Your task to perform on an android device: allow notifications from all sites in the chrome app Image 0: 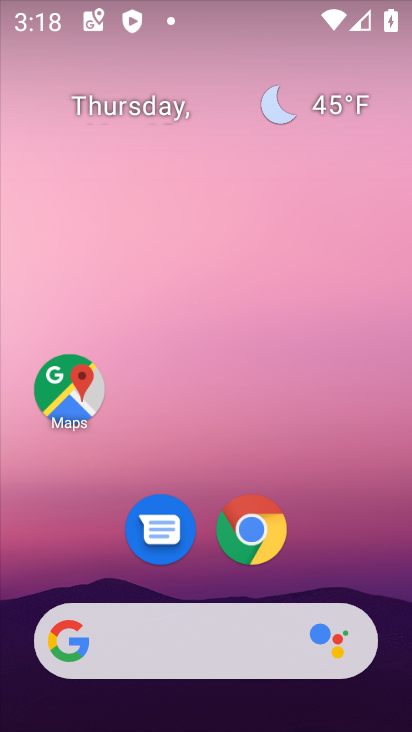
Step 0: drag from (336, 505) to (329, 76)
Your task to perform on an android device: allow notifications from all sites in the chrome app Image 1: 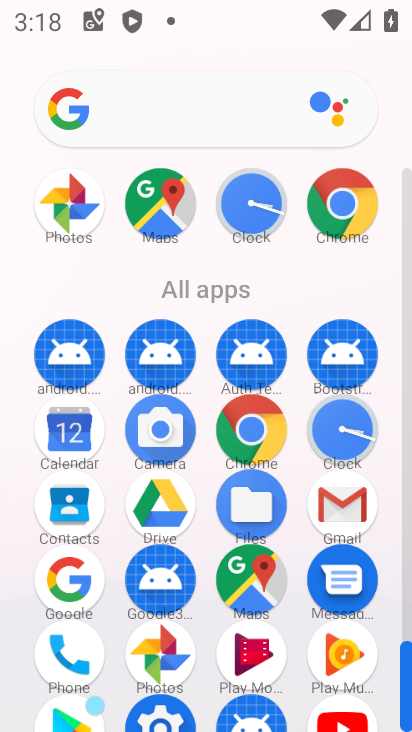
Step 1: click (347, 218)
Your task to perform on an android device: allow notifications from all sites in the chrome app Image 2: 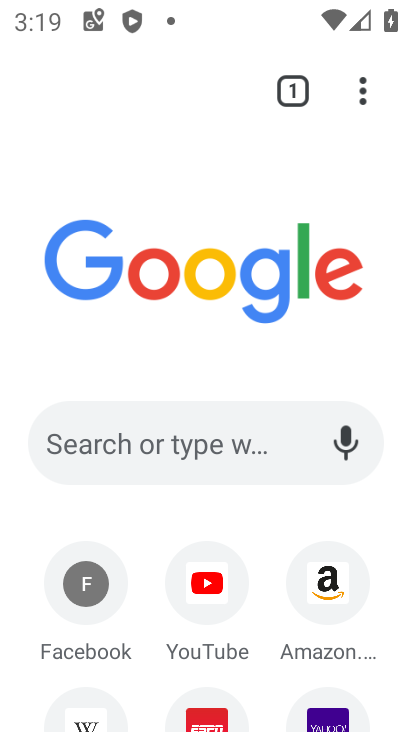
Step 2: task complete